Your task to perform on an android device: set default search engine in the chrome app Image 0: 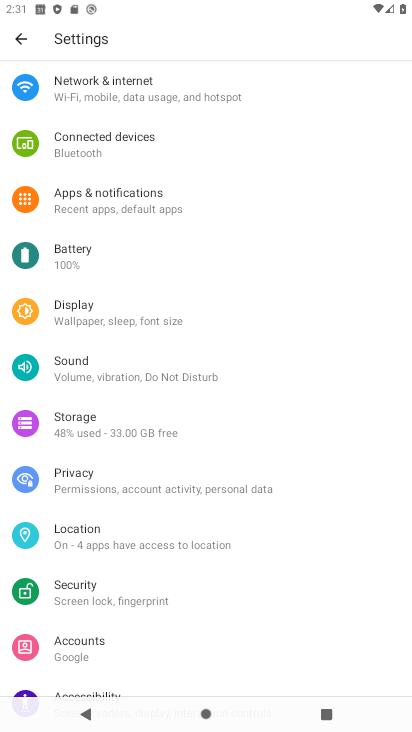
Step 0: press home button
Your task to perform on an android device: set default search engine in the chrome app Image 1: 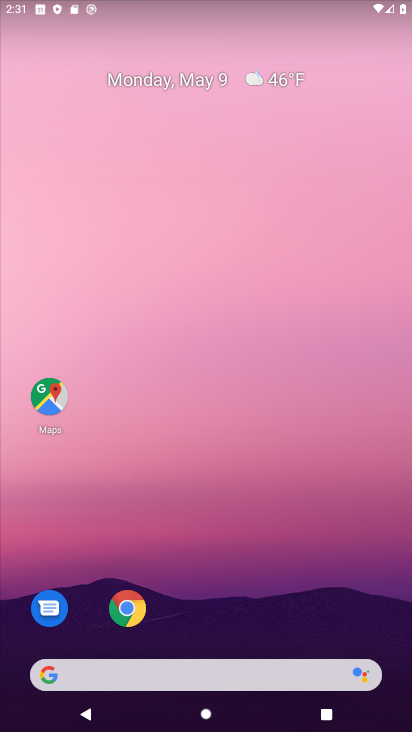
Step 1: click (125, 609)
Your task to perform on an android device: set default search engine in the chrome app Image 2: 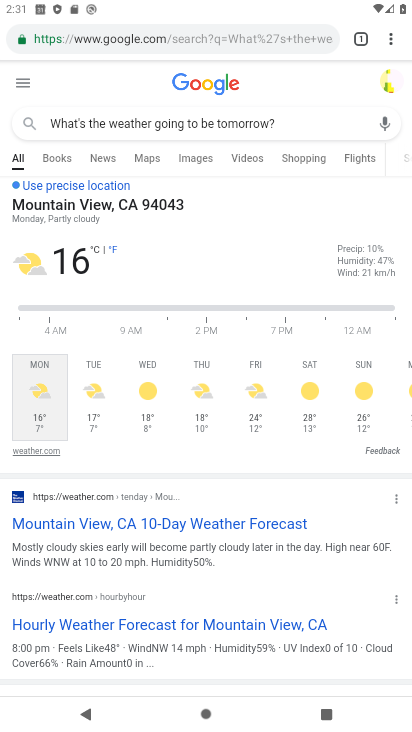
Step 2: click (395, 39)
Your task to perform on an android device: set default search engine in the chrome app Image 3: 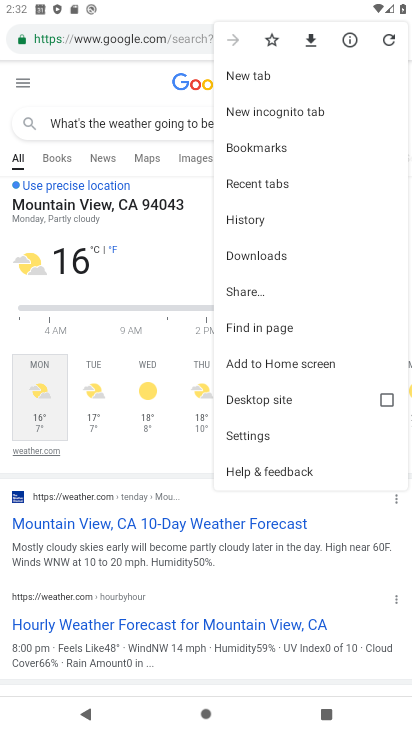
Step 3: click (265, 436)
Your task to perform on an android device: set default search engine in the chrome app Image 4: 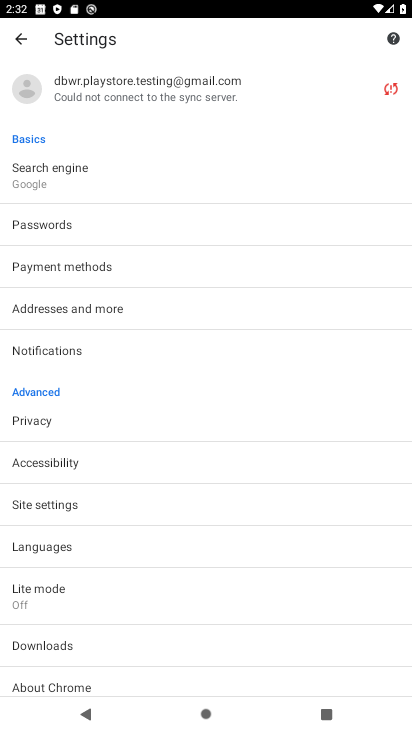
Step 4: click (77, 171)
Your task to perform on an android device: set default search engine in the chrome app Image 5: 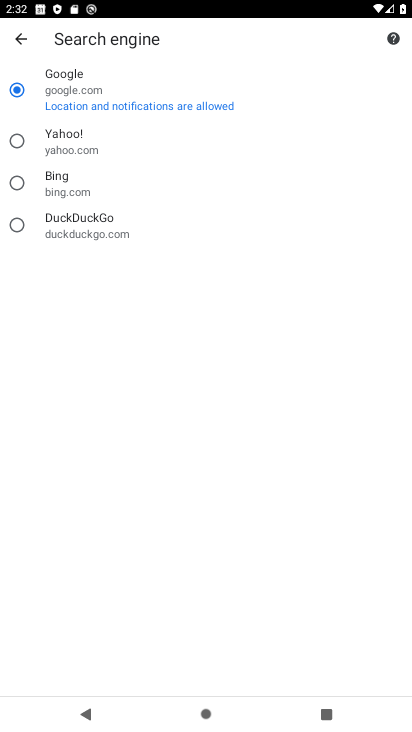
Step 5: task complete